Your task to perform on an android device: check out phone information Image 0: 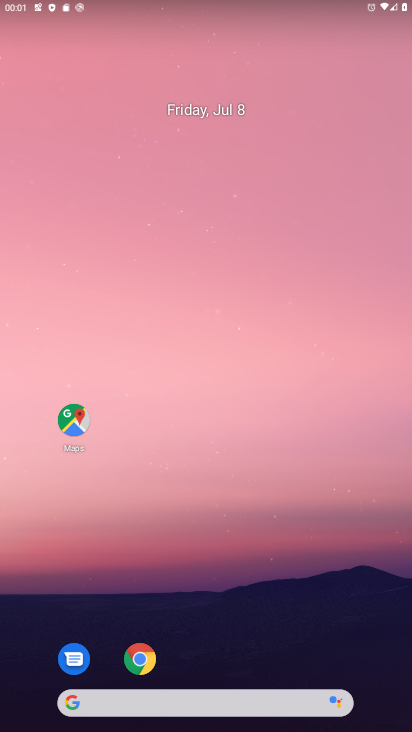
Step 0: drag from (172, 656) to (253, 22)
Your task to perform on an android device: check out phone information Image 1: 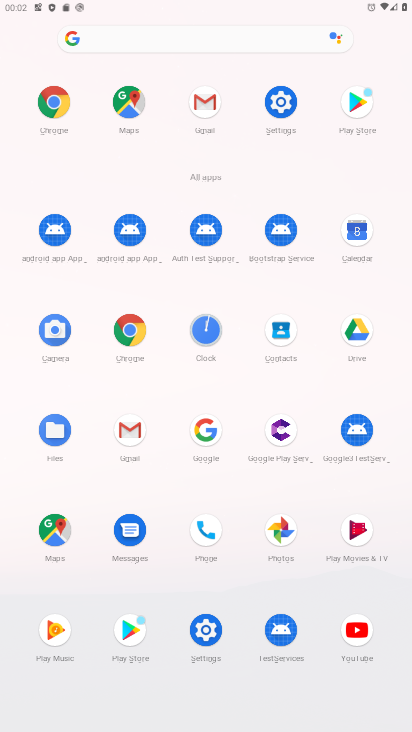
Step 1: click (293, 97)
Your task to perform on an android device: check out phone information Image 2: 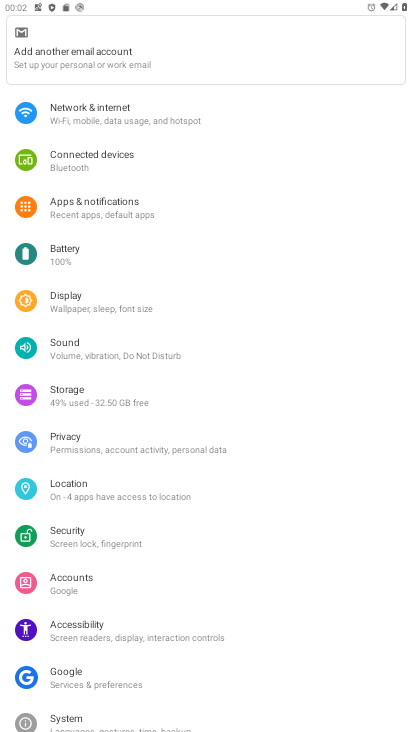
Step 2: drag from (92, 700) to (178, 157)
Your task to perform on an android device: check out phone information Image 3: 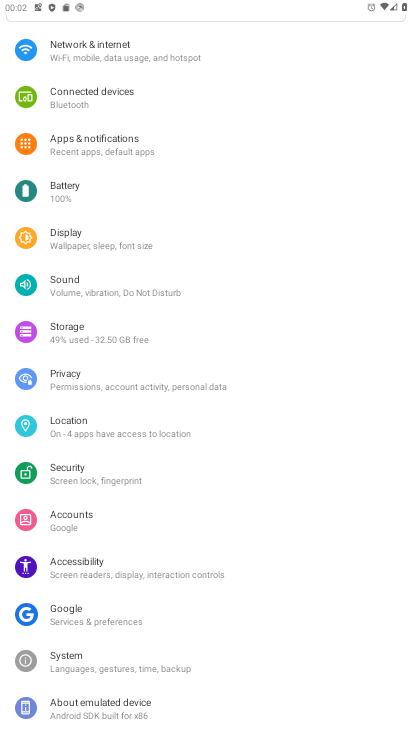
Step 3: click (86, 713)
Your task to perform on an android device: check out phone information Image 4: 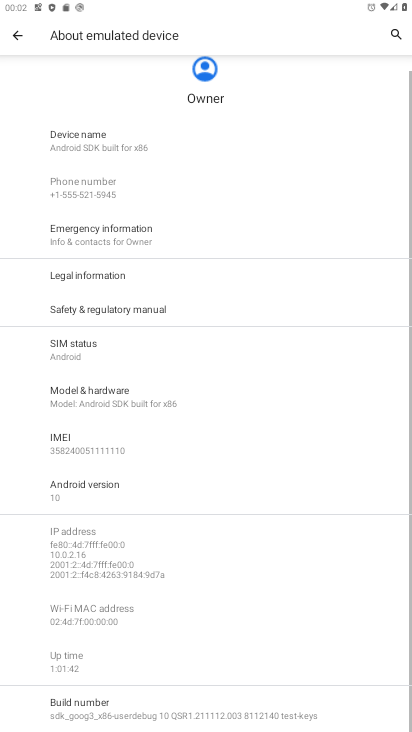
Step 4: task complete